Your task to perform on an android device: Open maps Image 0: 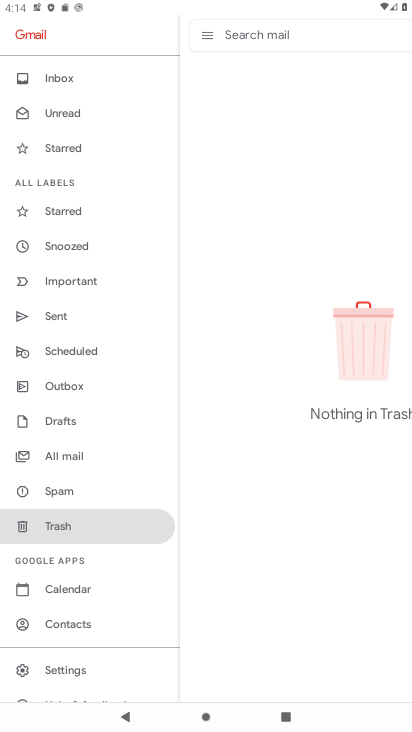
Step 0: press home button
Your task to perform on an android device: Open maps Image 1: 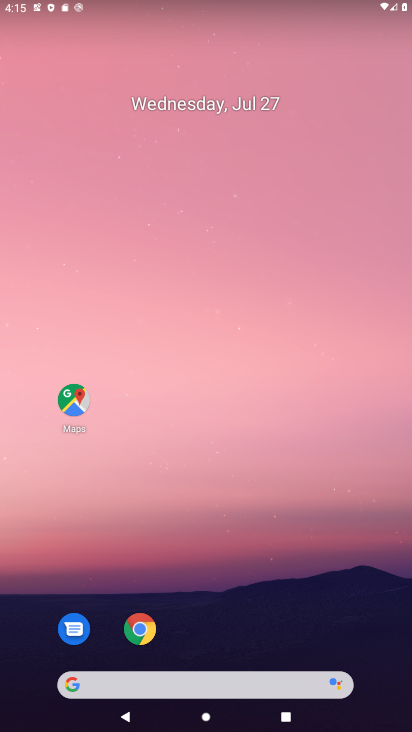
Step 1: click (89, 417)
Your task to perform on an android device: Open maps Image 2: 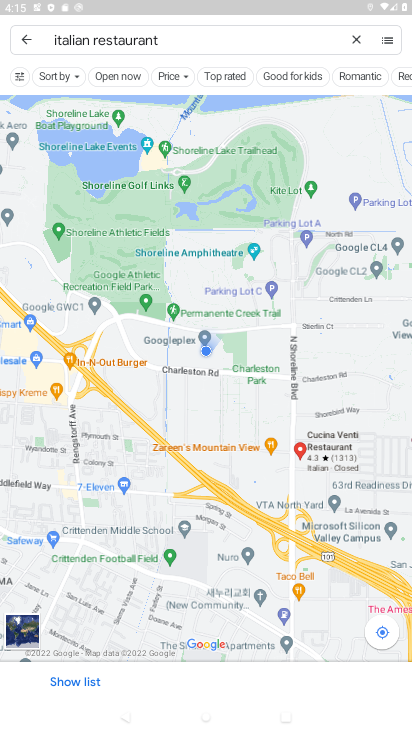
Step 2: click (348, 38)
Your task to perform on an android device: Open maps Image 3: 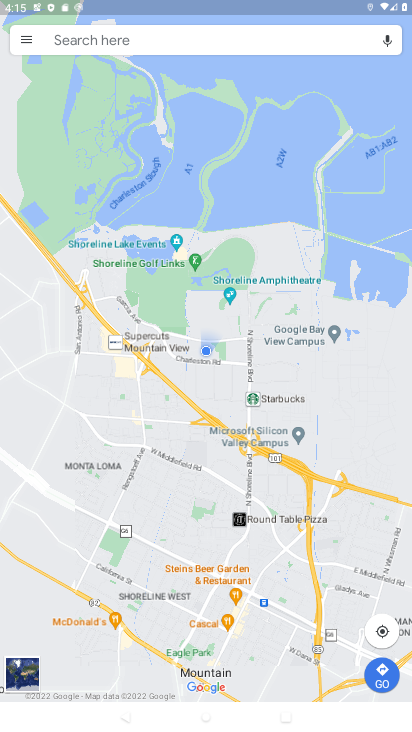
Step 3: task complete